Your task to perform on an android device: What's the weather today? Image 0: 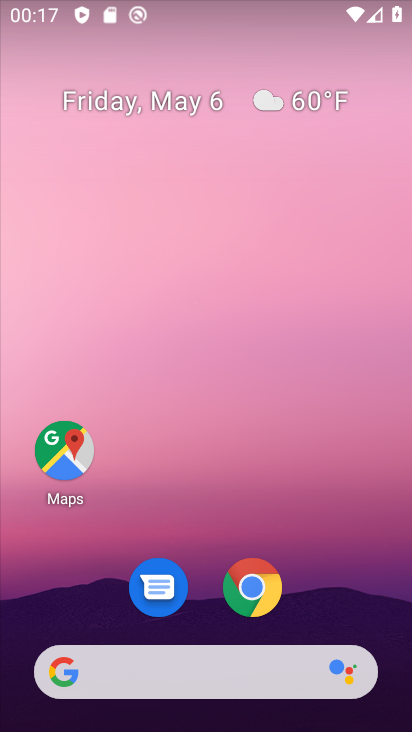
Step 0: click (292, 92)
Your task to perform on an android device: What's the weather today? Image 1: 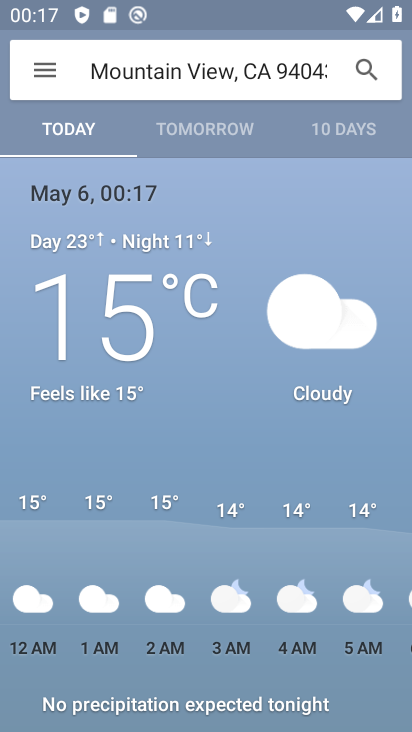
Step 1: task complete